Your task to perform on an android device: change your default location settings in chrome Image 0: 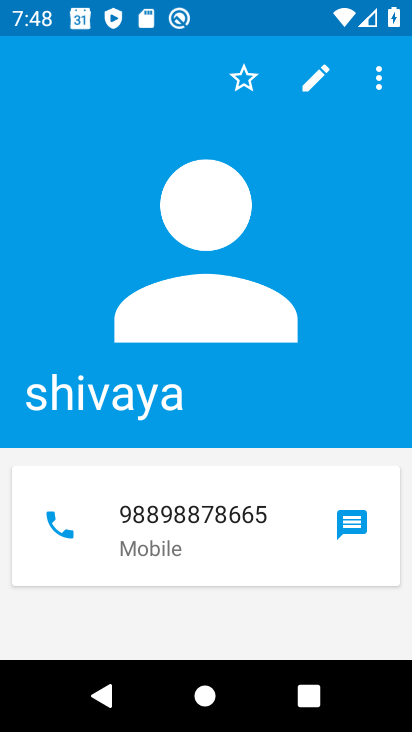
Step 0: press home button
Your task to perform on an android device: change your default location settings in chrome Image 1: 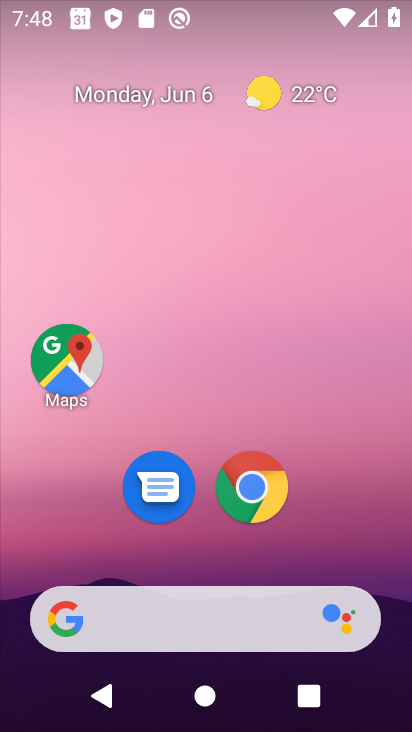
Step 1: drag from (335, 491) to (334, 150)
Your task to perform on an android device: change your default location settings in chrome Image 2: 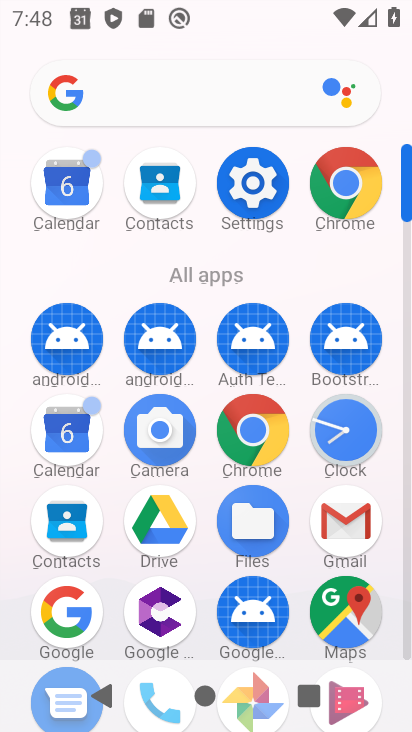
Step 2: click (241, 449)
Your task to perform on an android device: change your default location settings in chrome Image 3: 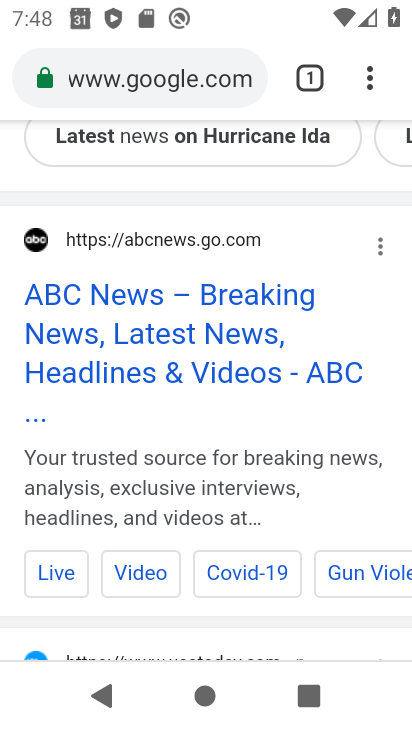
Step 3: drag from (384, 90) to (191, 551)
Your task to perform on an android device: change your default location settings in chrome Image 4: 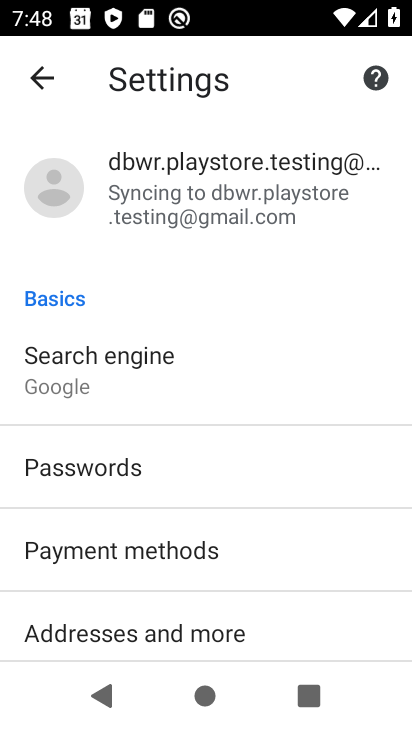
Step 4: drag from (292, 623) to (296, 297)
Your task to perform on an android device: change your default location settings in chrome Image 5: 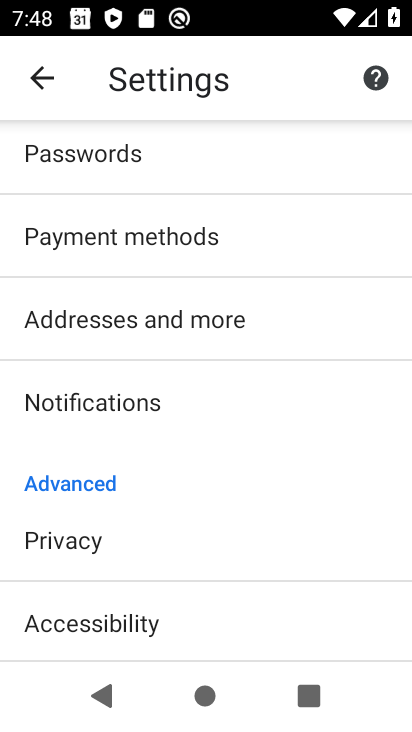
Step 5: drag from (181, 608) to (228, 330)
Your task to perform on an android device: change your default location settings in chrome Image 6: 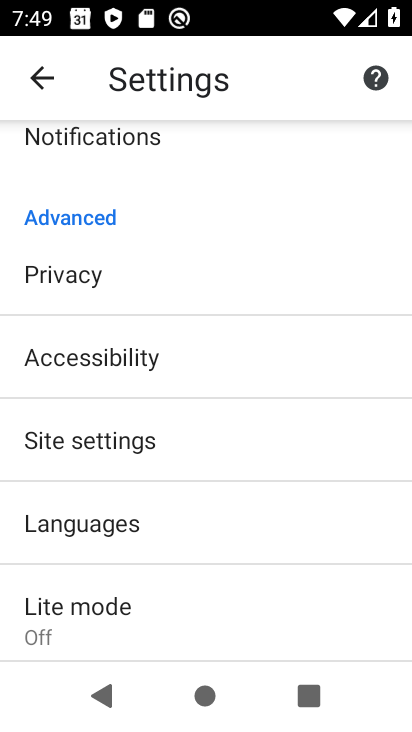
Step 6: drag from (151, 592) to (164, 398)
Your task to perform on an android device: change your default location settings in chrome Image 7: 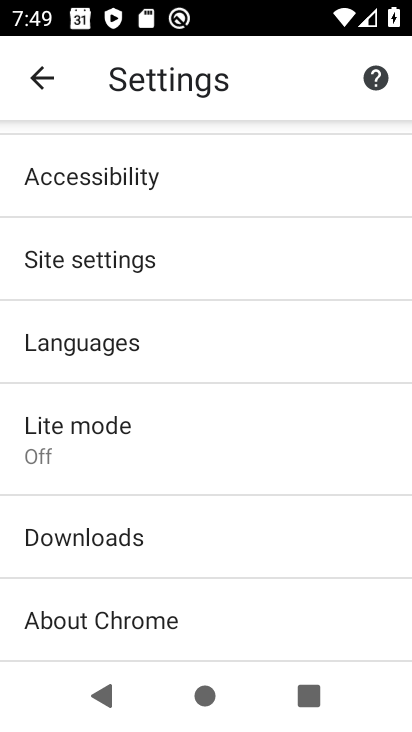
Step 7: drag from (175, 161) to (184, 580)
Your task to perform on an android device: change your default location settings in chrome Image 8: 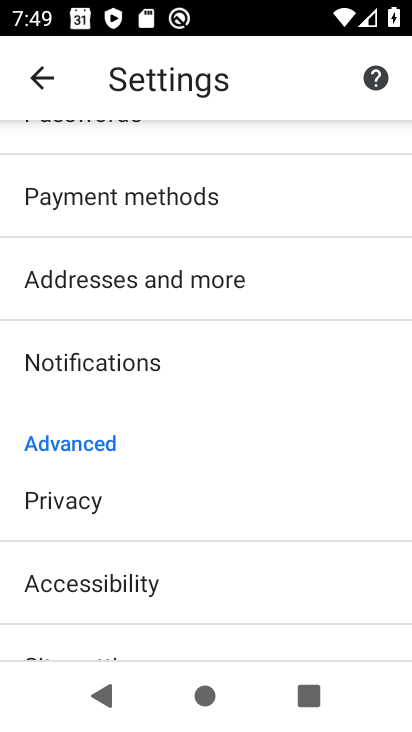
Step 8: drag from (177, 581) to (212, 312)
Your task to perform on an android device: change your default location settings in chrome Image 9: 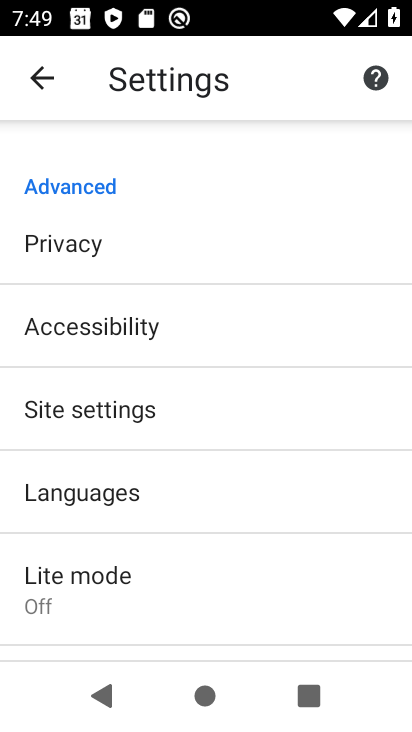
Step 9: click (176, 418)
Your task to perform on an android device: change your default location settings in chrome Image 10: 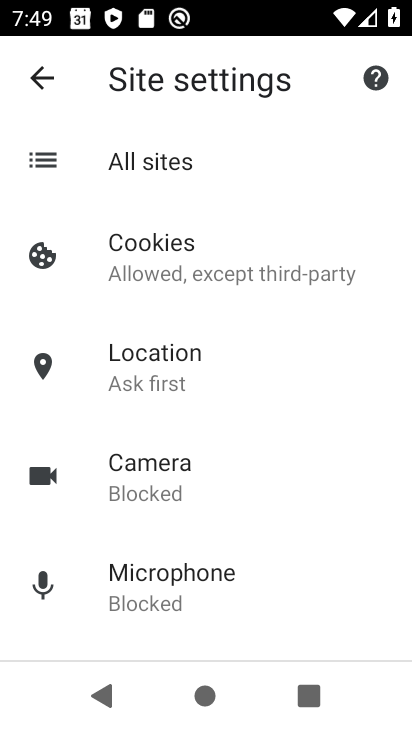
Step 10: click (173, 369)
Your task to perform on an android device: change your default location settings in chrome Image 11: 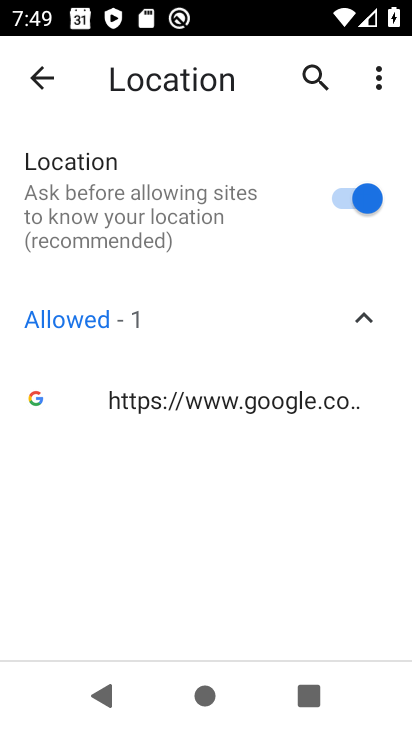
Step 11: click (350, 204)
Your task to perform on an android device: change your default location settings in chrome Image 12: 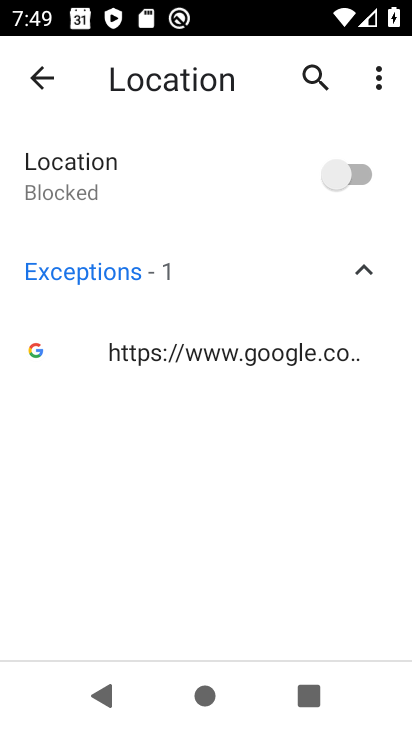
Step 12: task complete